Your task to perform on an android device: Show me the alarms in the clock app Image 0: 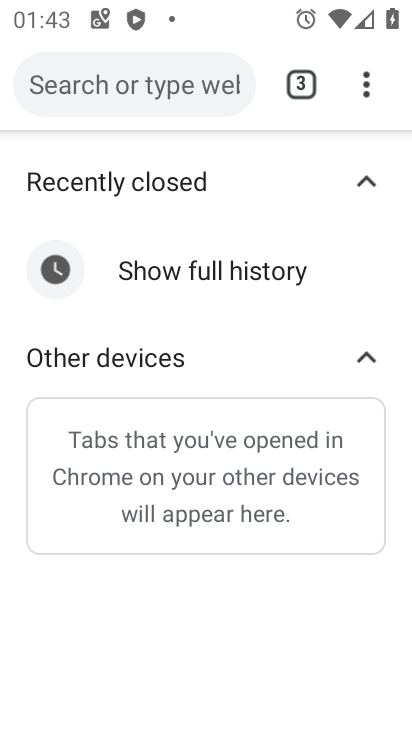
Step 0: press home button
Your task to perform on an android device: Show me the alarms in the clock app Image 1: 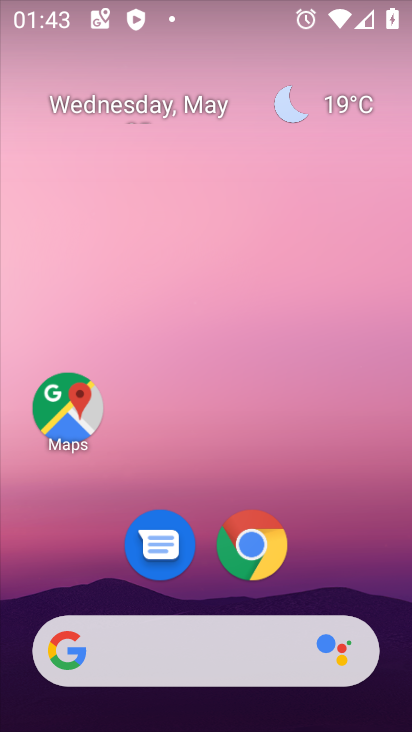
Step 1: drag from (299, 541) to (251, 45)
Your task to perform on an android device: Show me the alarms in the clock app Image 2: 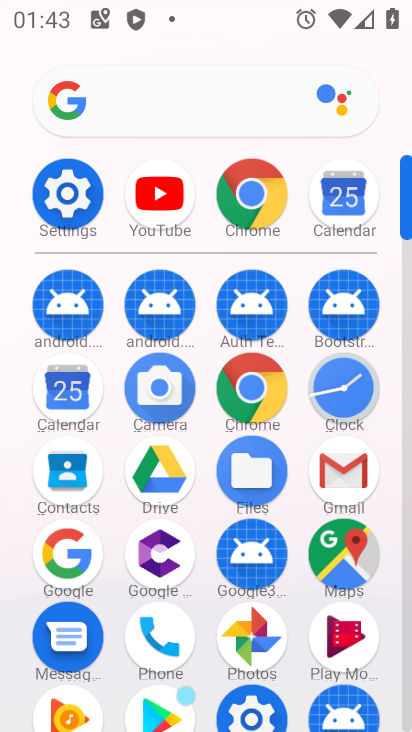
Step 2: click (344, 396)
Your task to perform on an android device: Show me the alarms in the clock app Image 3: 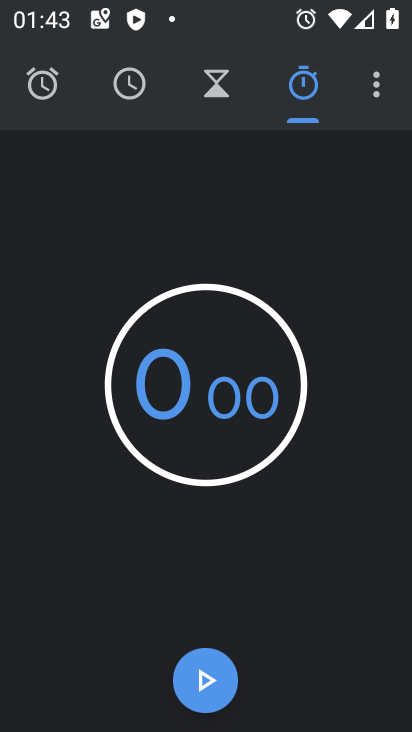
Step 3: click (43, 84)
Your task to perform on an android device: Show me the alarms in the clock app Image 4: 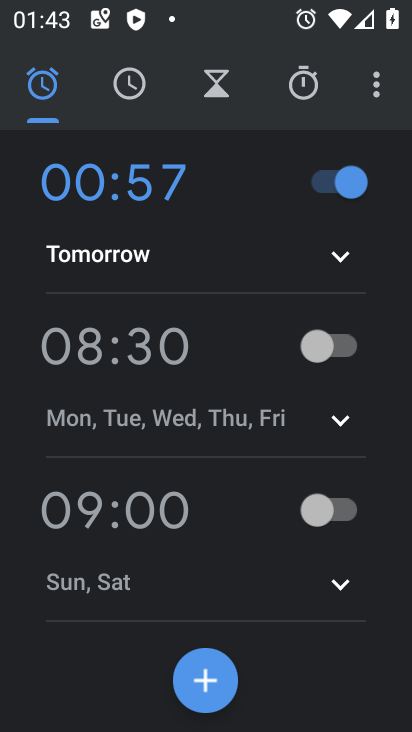
Step 4: task complete